Your task to perform on an android device: turn off priority inbox in the gmail app Image 0: 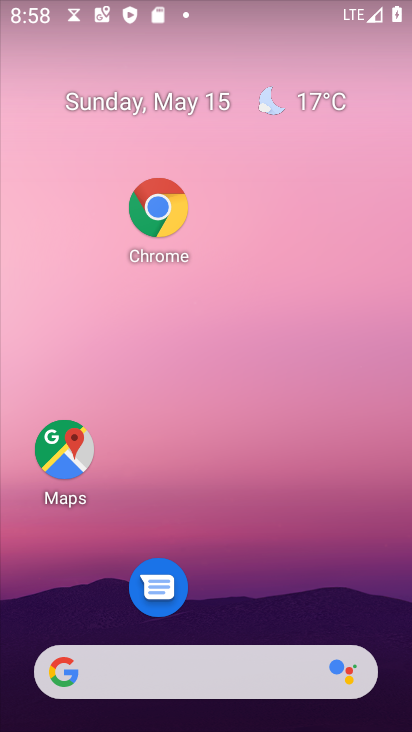
Step 0: drag from (285, 521) to (252, 286)
Your task to perform on an android device: turn off priority inbox in the gmail app Image 1: 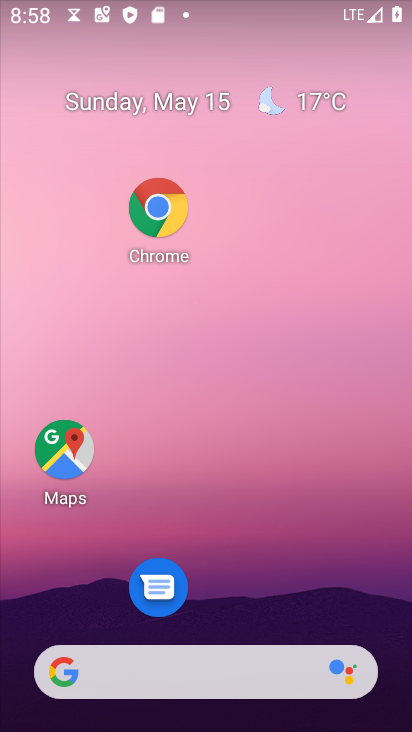
Step 1: drag from (204, 332) to (137, 35)
Your task to perform on an android device: turn off priority inbox in the gmail app Image 2: 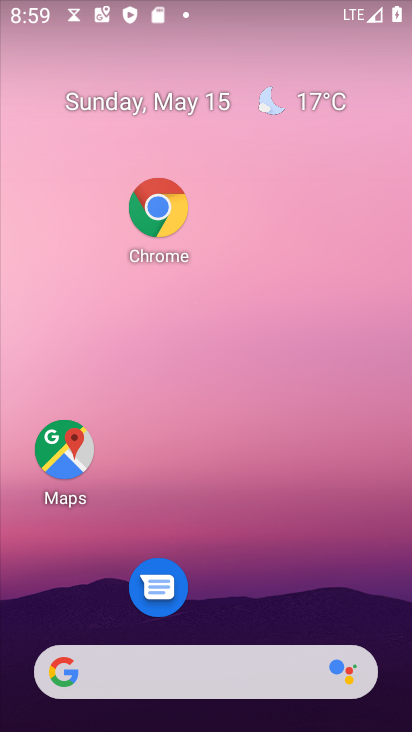
Step 2: drag from (337, 658) to (47, 54)
Your task to perform on an android device: turn off priority inbox in the gmail app Image 3: 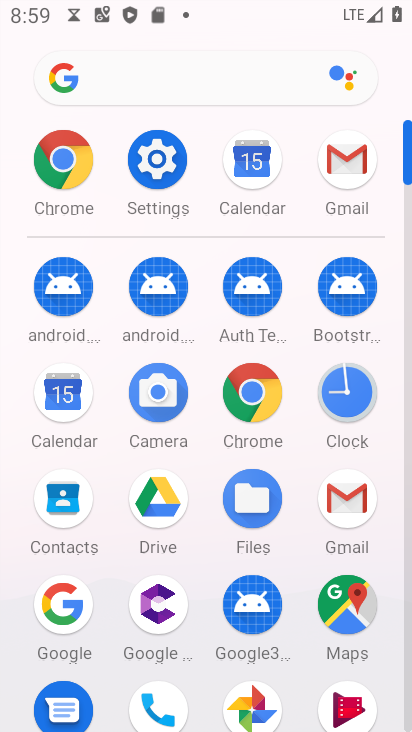
Step 3: click (351, 506)
Your task to perform on an android device: turn off priority inbox in the gmail app Image 4: 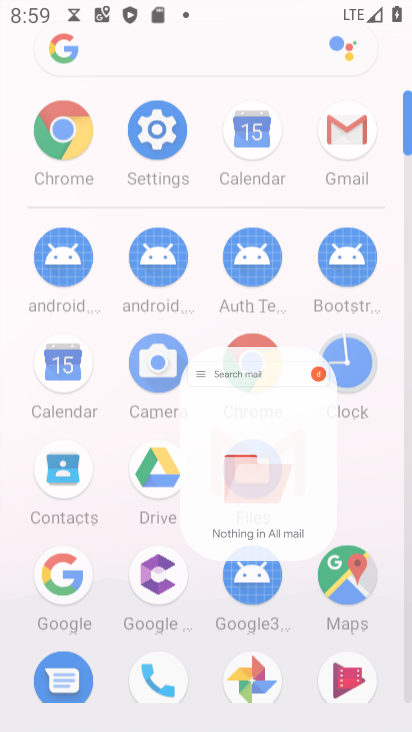
Step 4: click (350, 486)
Your task to perform on an android device: turn off priority inbox in the gmail app Image 5: 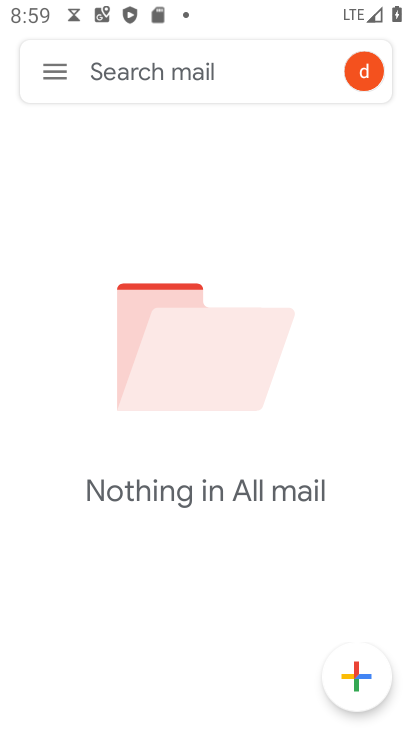
Step 5: click (53, 74)
Your task to perform on an android device: turn off priority inbox in the gmail app Image 6: 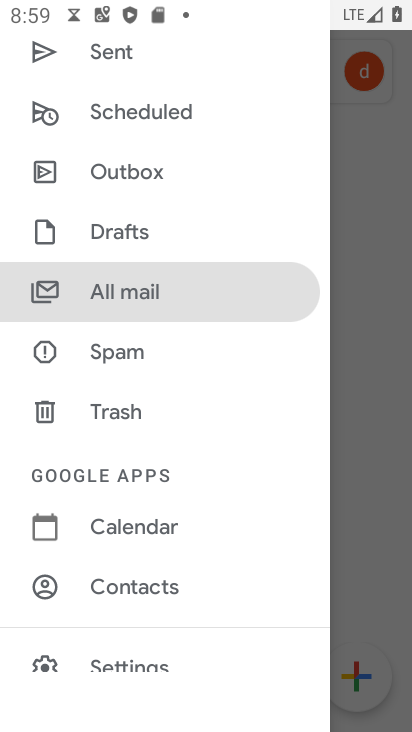
Step 6: click (136, 296)
Your task to perform on an android device: turn off priority inbox in the gmail app Image 7: 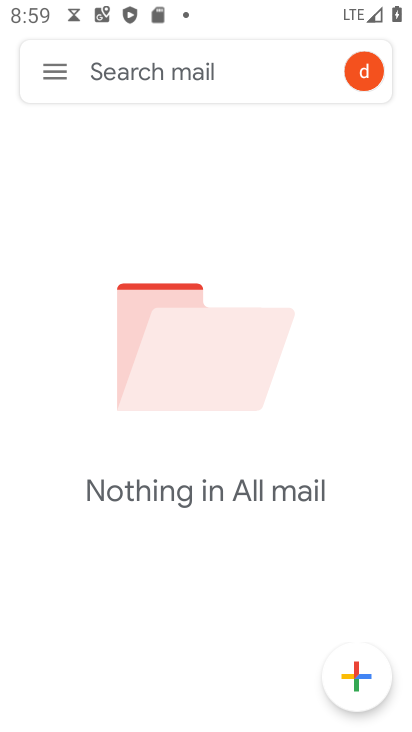
Step 7: drag from (157, 545) to (61, 65)
Your task to perform on an android device: turn off priority inbox in the gmail app Image 8: 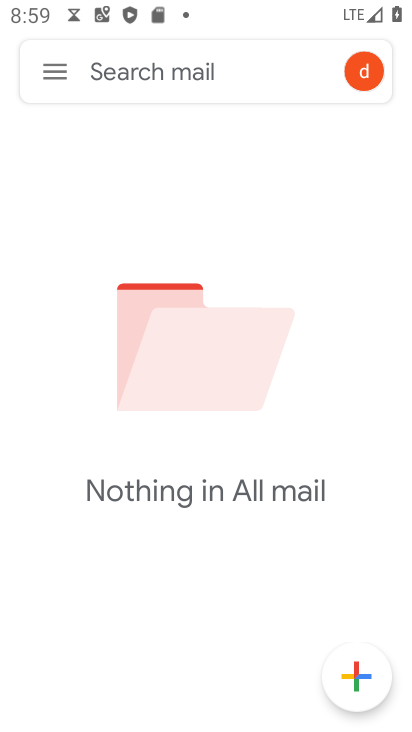
Step 8: click (68, 70)
Your task to perform on an android device: turn off priority inbox in the gmail app Image 9: 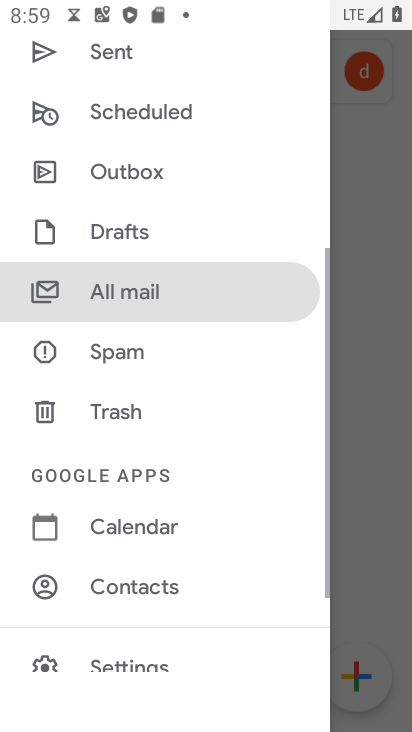
Step 9: drag from (152, 572) to (153, 70)
Your task to perform on an android device: turn off priority inbox in the gmail app Image 10: 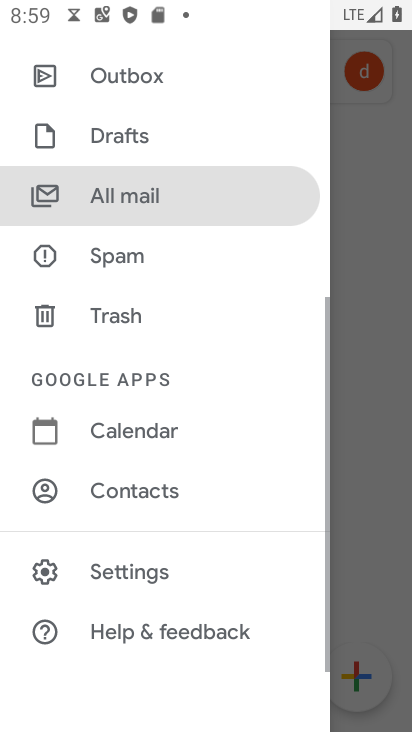
Step 10: click (120, 577)
Your task to perform on an android device: turn off priority inbox in the gmail app Image 11: 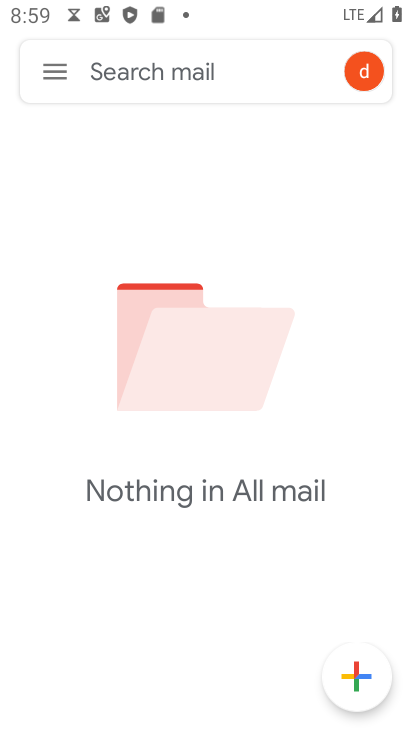
Step 11: click (119, 579)
Your task to perform on an android device: turn off priority inbox in the gmail app Image 12: 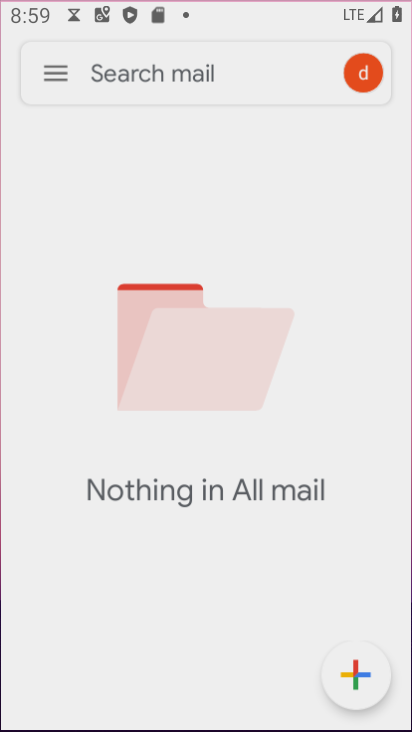
Step 12: click (119, 578)
Your task to perform on an android device: turn off priority inbox in the gmail app Image 13: 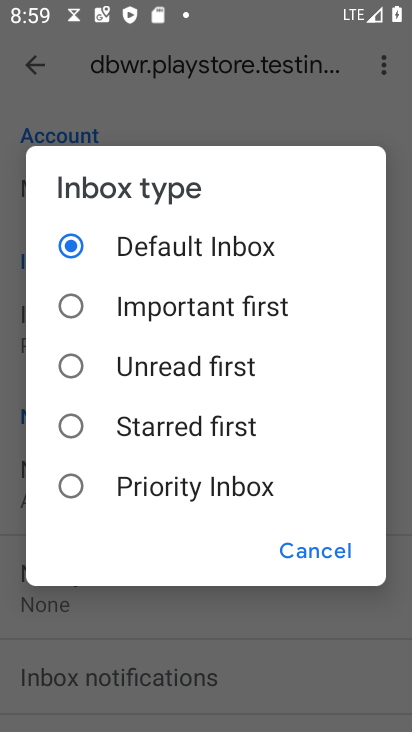
Step 13: click (70, 479)
Your task to perform on an android device: turn off priority inbox in the gmail app Image 14: 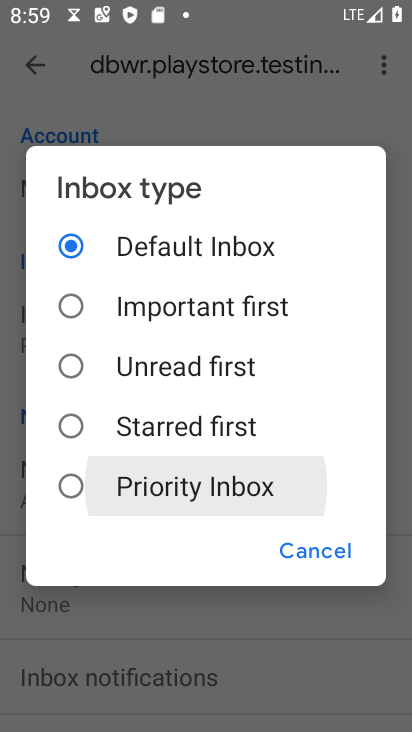
Step 14: click (70, 479)
Your task to perform on an android device: turn off priority inbox in the gmail app Image 15: 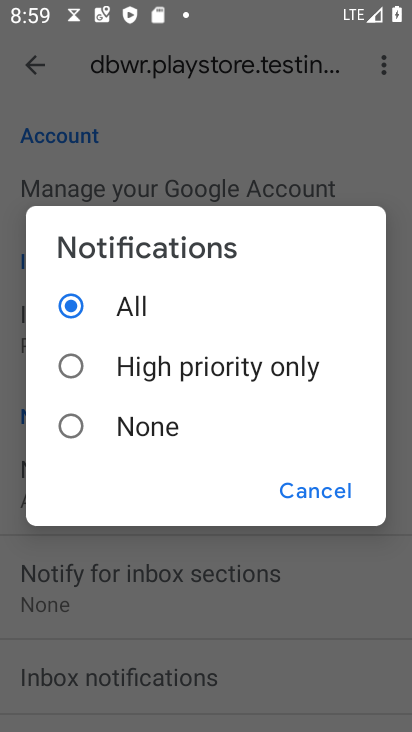
Step 15: click (324, 501)
Your task to perform on an android device: turn off priority inbox in the gmail app Image 16: 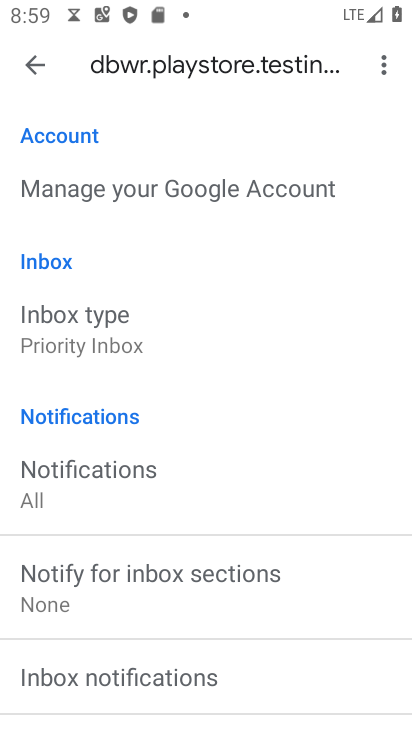
Step 16: task complete